Your task to perform on an android device: refresh tabs in the chrome app Image 0: 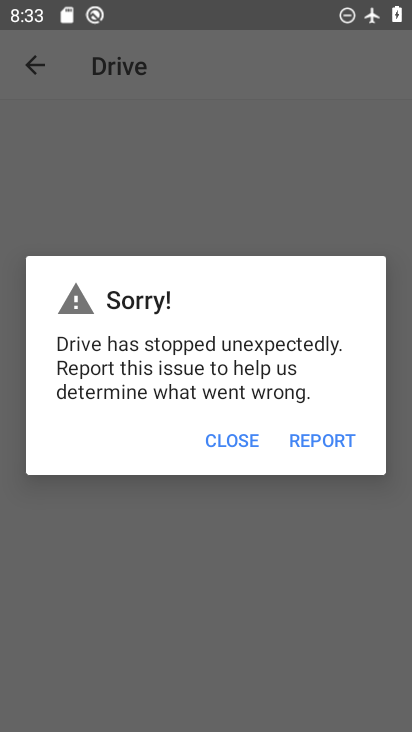
Step 0: press home button
Your task to perform on an android device: refresh tabs in the chrome app Image 1: 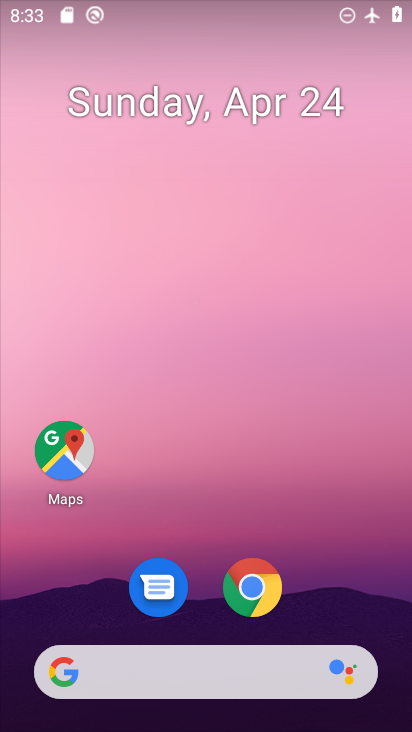
Step 1: drag from (333, 604) to (301, 91)
Your task to perform on an android device: refresh tabs in the chrome app Image 2: 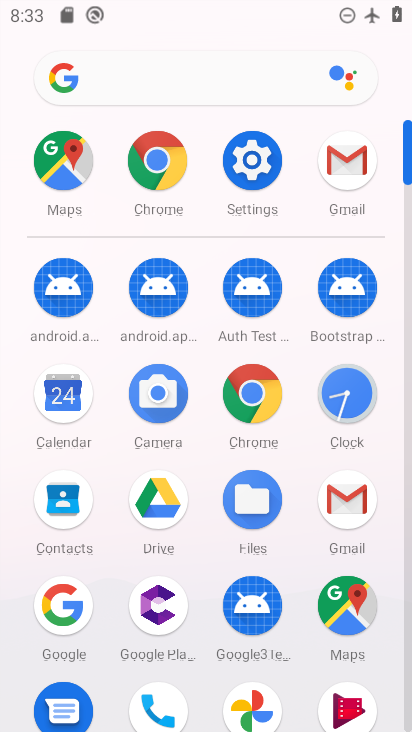
Step 2: click (253, 399)
Your task to perform on an android device: refresh tabs in the chrome app Image 3: 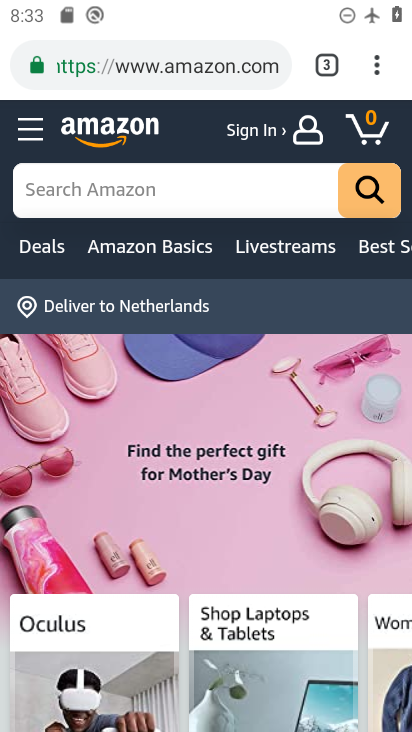
Step 3: task complete